Your task to perform on an android device: check google app version Image 0: 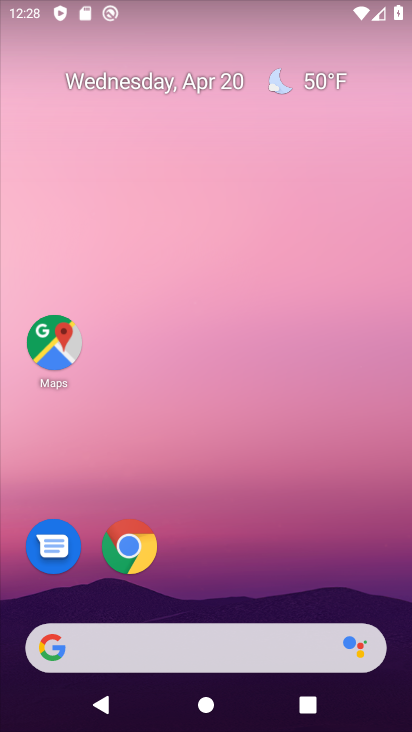
Step 0: drag from (231, 471) to (257, 65)
Your task to perform on an android device: check google app version Image 1: 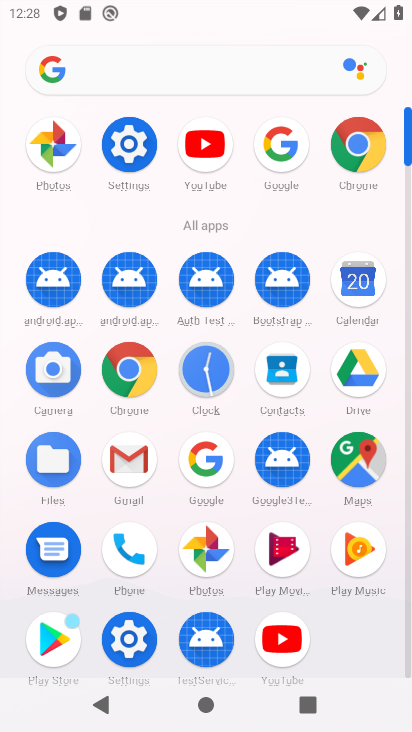
Step 1: click (286, 148)
Your task to perform on an android device: check google app version Image 2: 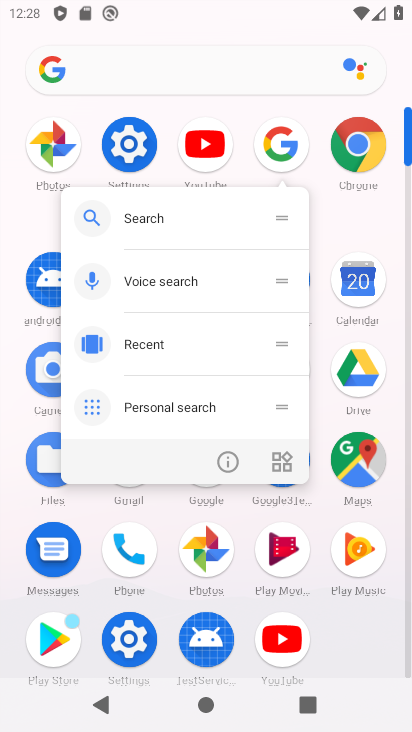
Step 2: click (232, 459)
Your task to perform on an android device: check google app version Image 3: 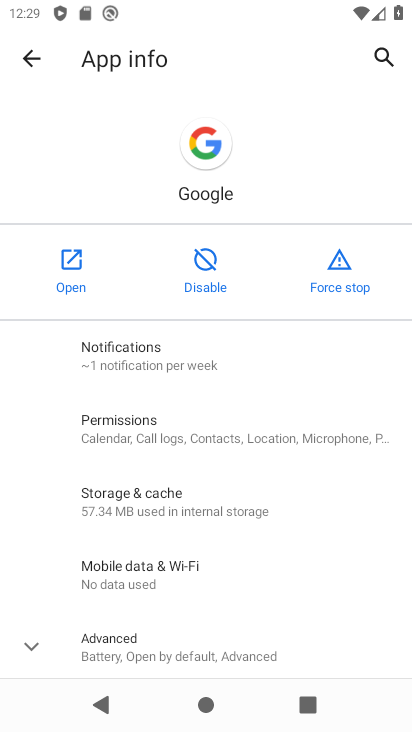
Step 3: drag from (182, 622) to (221, 25)
Your task to perform on an android device: check google app version Image 4: 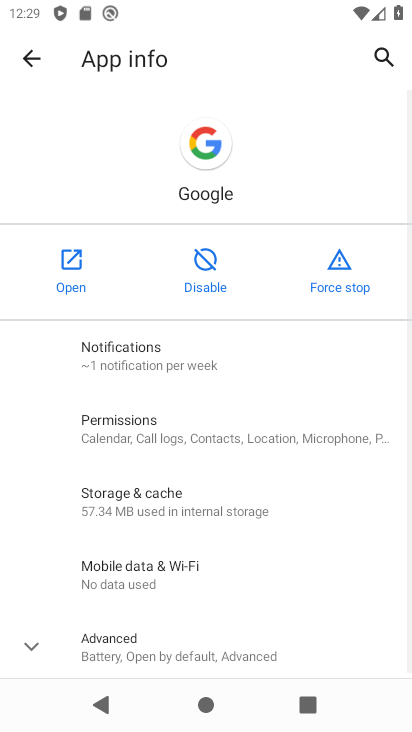
Step 4: drag from (192, 602) to (194, 37)
Your task to perform on an android device: check google app version Image 5: 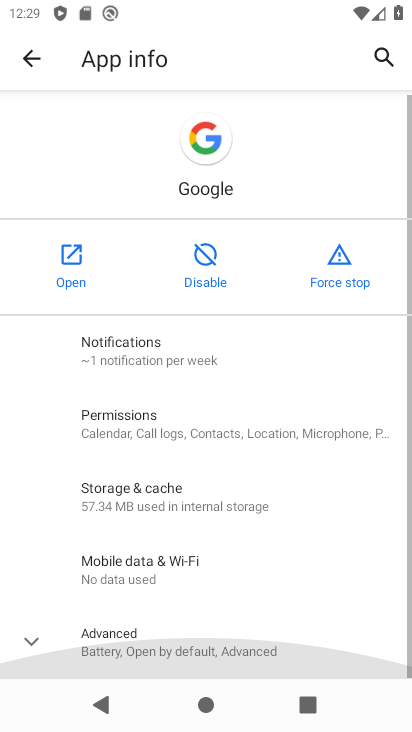
Step 5: click (244, 655)
Your task to perform on an android device: check google app version Image 6: 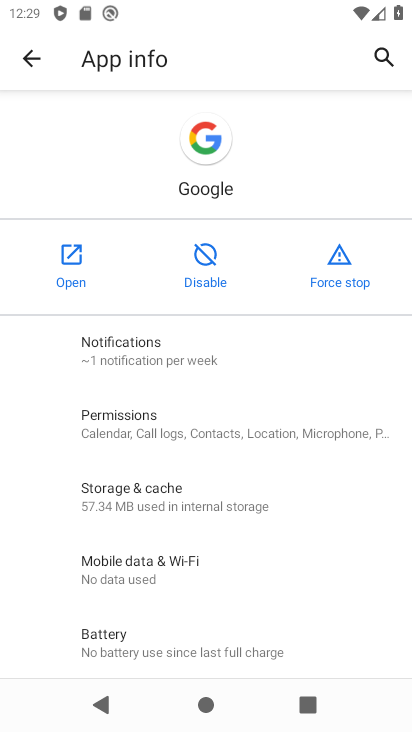
Step 6: task complete